Your task to perform on an android device: Set the phone to "Do not disturb". Image 0: 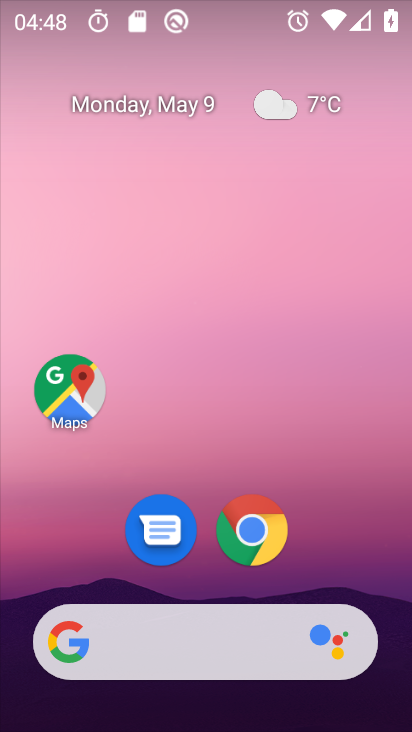
Step 0: drag from (205, 12) to (177, 508)
Your task to perform on an android device: Set the phone to "Do not disturb". Image 1: 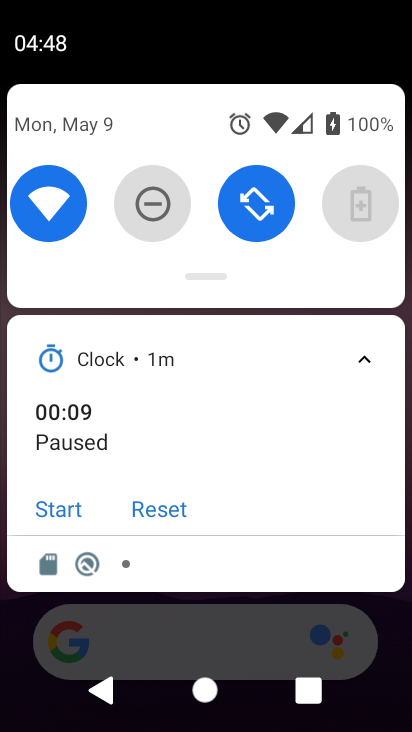
Step 1: click (141, 207)
Your task to perform on an android device: Set the phone to "Do not disturb". Image 2: 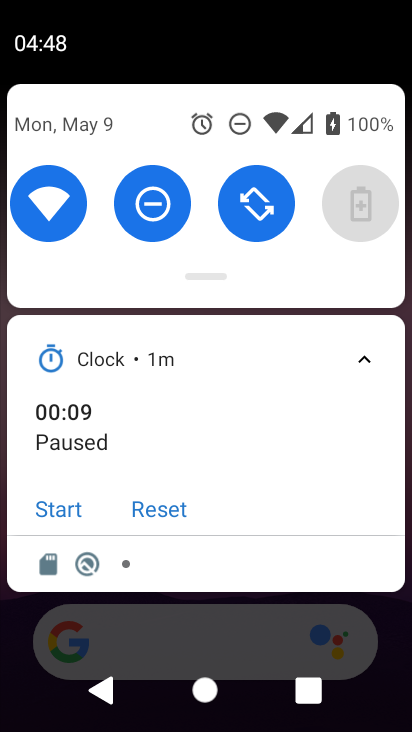
Step 2: task complete